Your task to perform on an android device: Open the calendar and show me this week's events? Image 0: 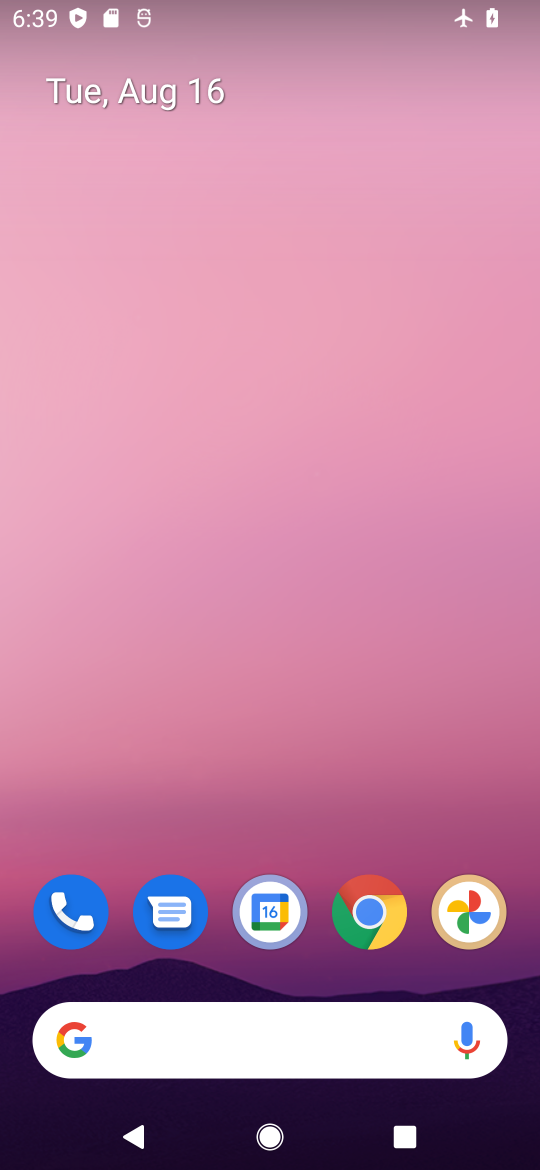
Step 0: click (270, 908)
Your task to perform on an android device: Open the calendar and show me this week's events? Image 1: 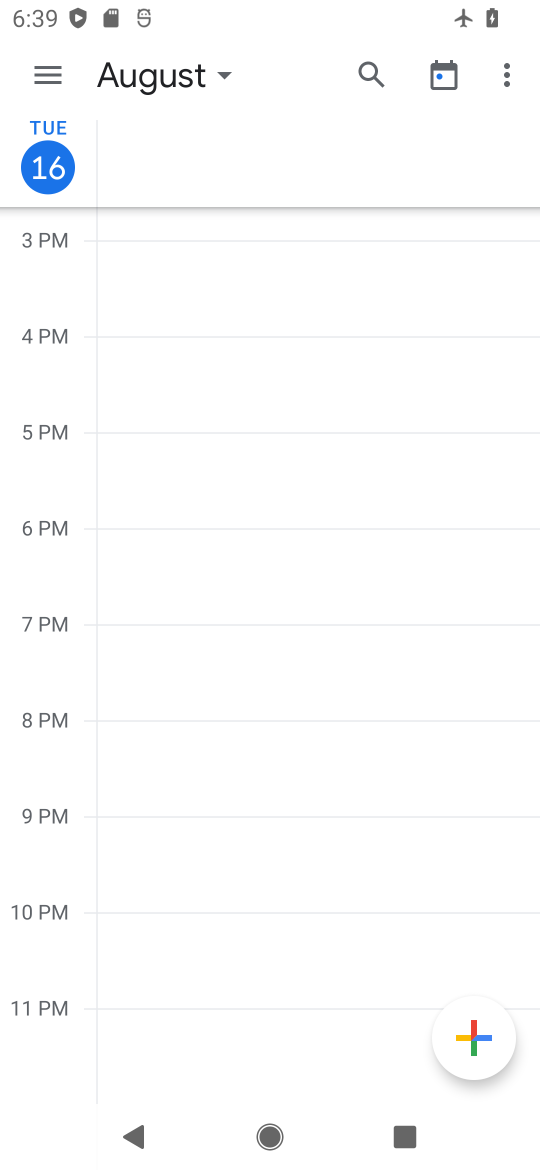
Step 1: click (44, 74)
Your task to perform on an android device: Open the calendar and show me this week's events? Image 2: 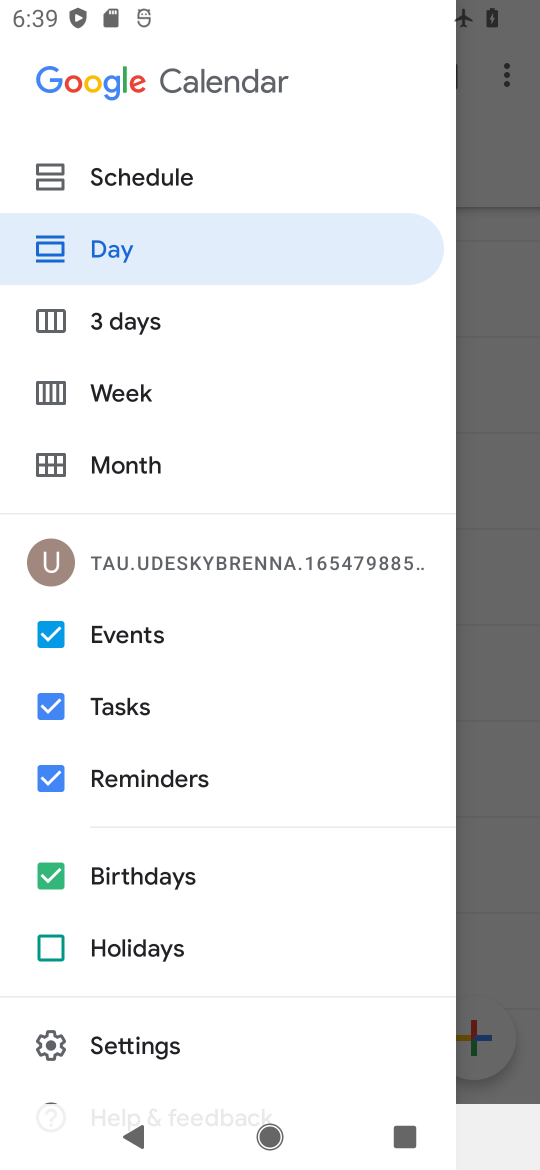
Step 2: click (117, 390)
Your task to perform on an android device: Open the calendar and show me this week's events? Image 3: 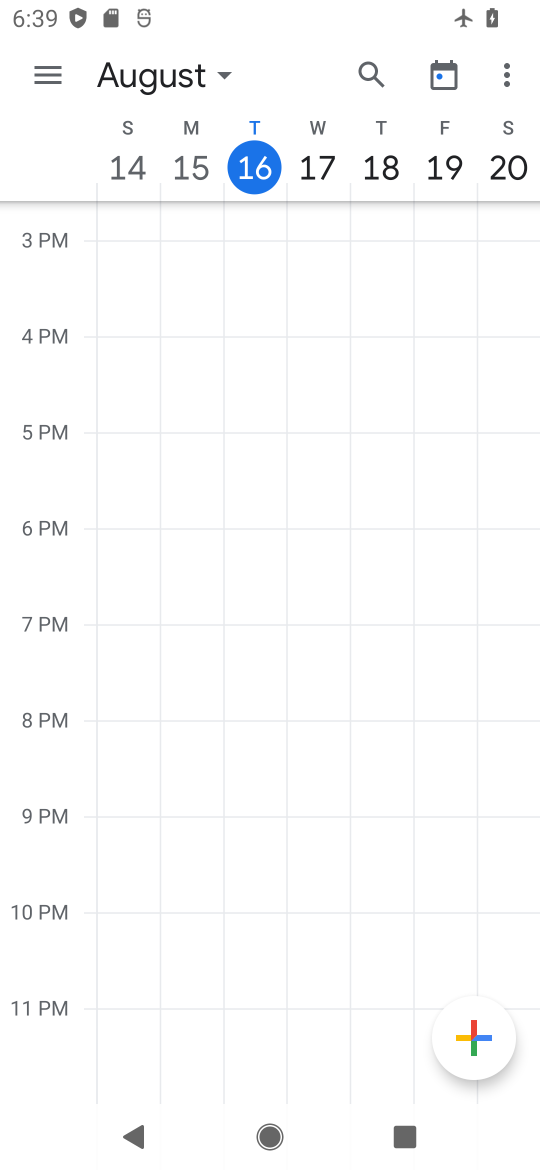
Step 3: task complete